Your task to perform on an android device: see tabs open on other devices in the chrome app Image 0: 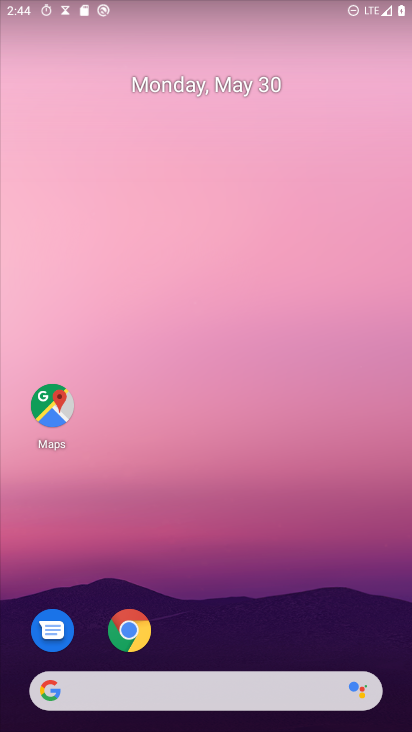
Step 0: press home button
Your task to perform on an android device: see tabs open on other devices in the chrome app Image 1: 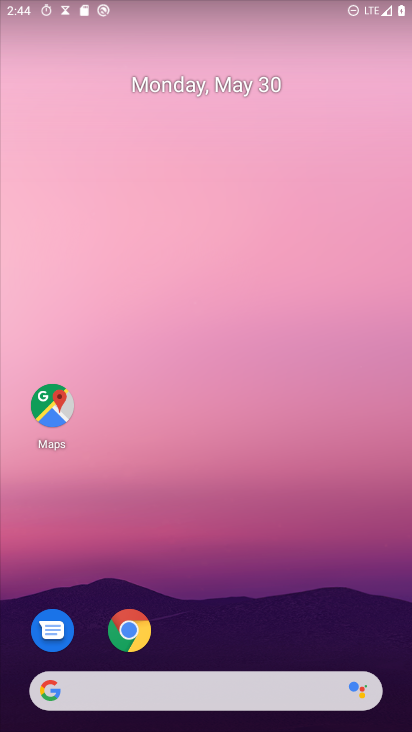
Step 1: drag from (264, 705) to (223, 142)
Your task to perform on an android device: see tabs open on other devices in the chrome app Image 2: 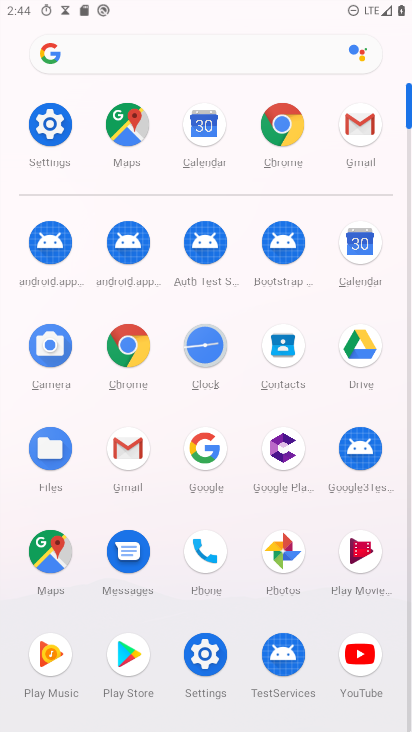
Step 2: click (266, 136)
Your task to perform on an android device: see tabs open on other devices in the chrome app Image 3: 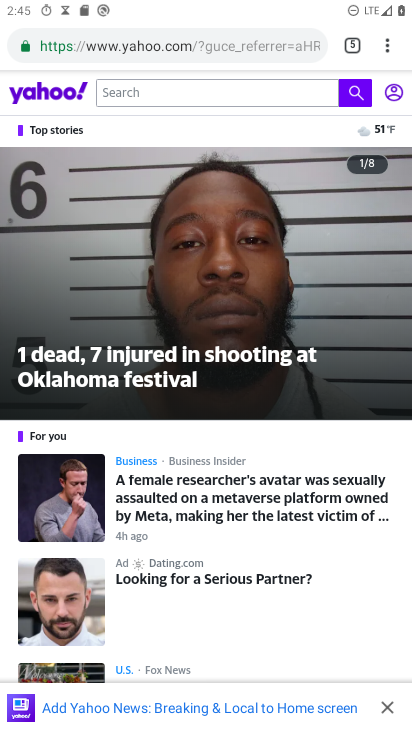
Step 3: click (363, 34)
Your task to perform on an android device: see tabs open on other devices in the chrome app Image 4: 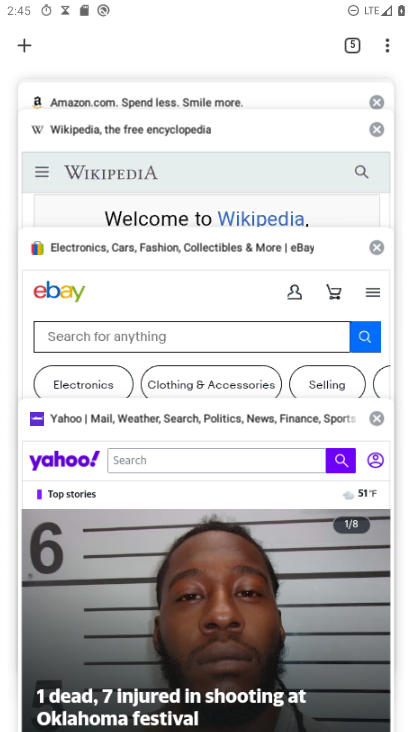
Step 4: click (25, 53)
Your task to perform on an android device: see tabs open on other devices in the chrome app Image 5: 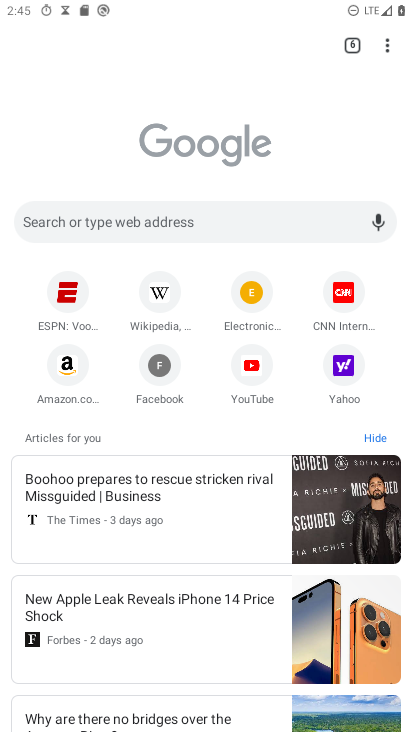
Step 5: task complete